Your task to perform on an android device: turn off notifications settings in the gmail app Image 0: 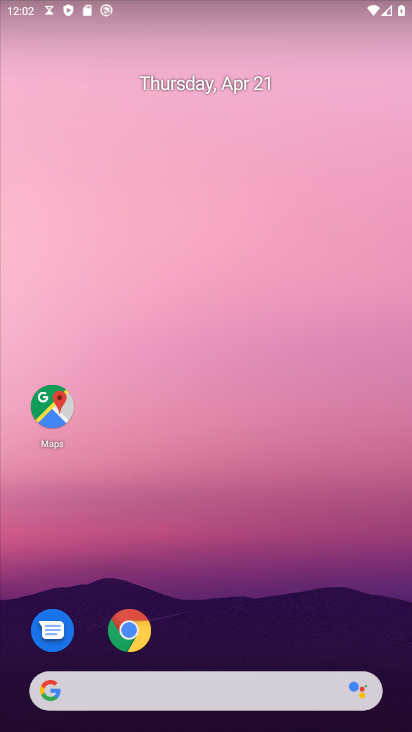
Step 0: drag from (310, 484) to (284, 84)
Your task to perform on an android device: turn off notifications settings in the gmail app Image 1: 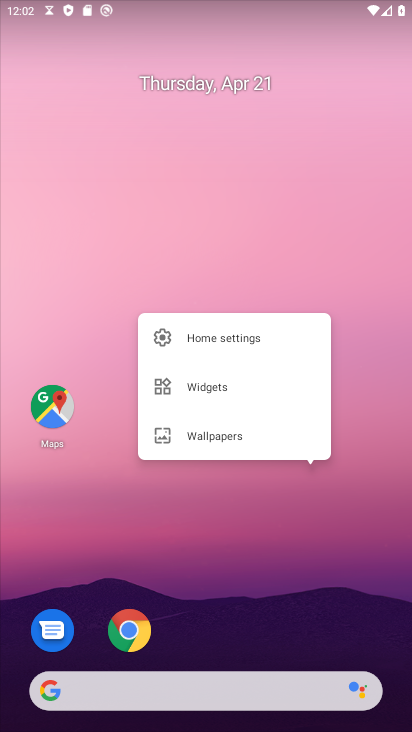
Step 1: drag from (338, 618) to (284, 190)
Your task to perform on an android device: turn off notifications settings in the gmail app Image 2: 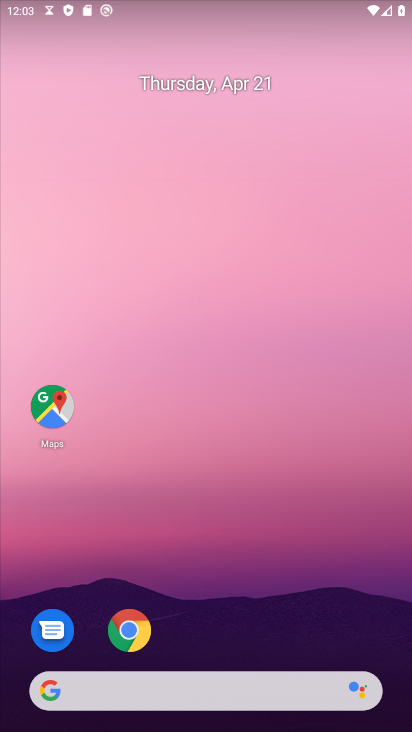
Step 2: drag from (214, 638) to (199, 277)
Your task to perform on an android device: turn off notifications settings in the gmail app Image 3: 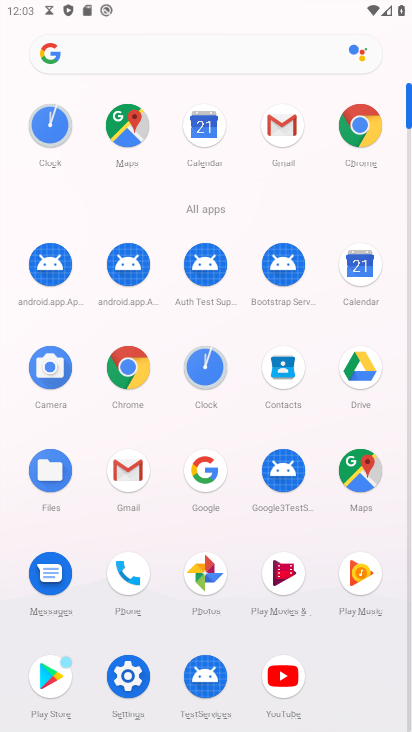
Step 3: click (134, 460)
Your task to perform on an android device: turn off notifications settings in the gmail app Image 4: 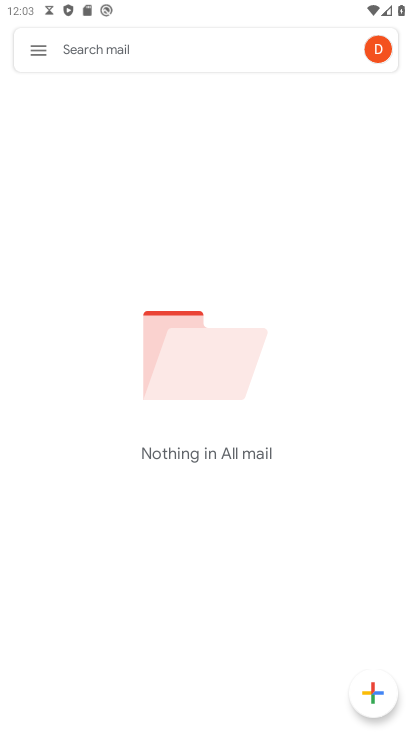
Step 4: click (22, 51)
Your task to perform on an android device: turn off notifications settings in the gmail app Image 5: 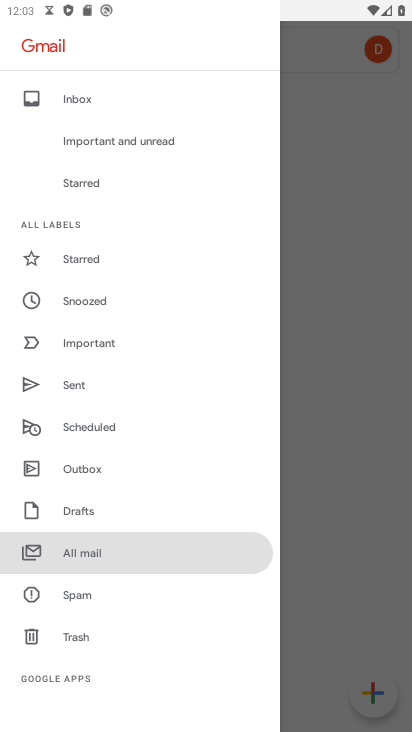
Step 5: drag from (150, 644) to (131, 268)
Your task to perform on an android device: turn off notifications settings in the gmail app Image 6: 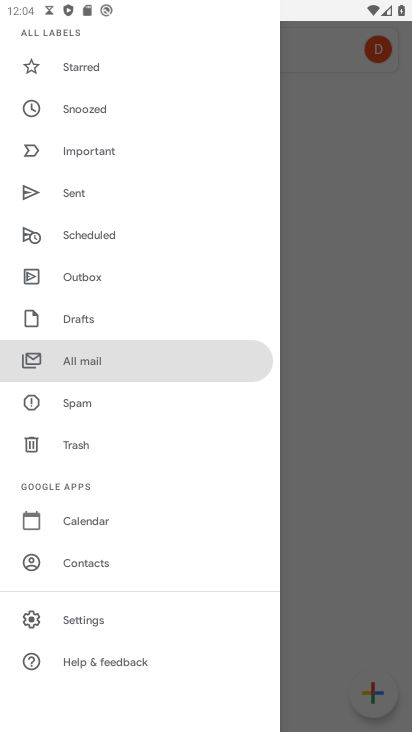
Step 6: click (142, 612)
Your task to perform on an android device: turn off notifications settings in the gmail app Image 7: 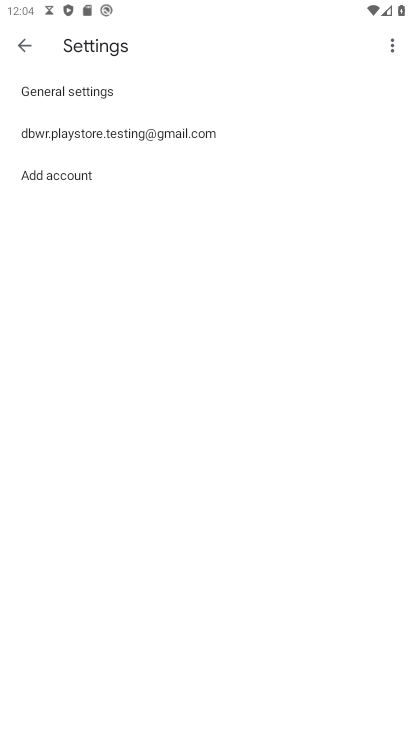
Step 7: click (251, 122)
Your task to perform on an android device: turn off notifications settings in the gmail app Image 8: 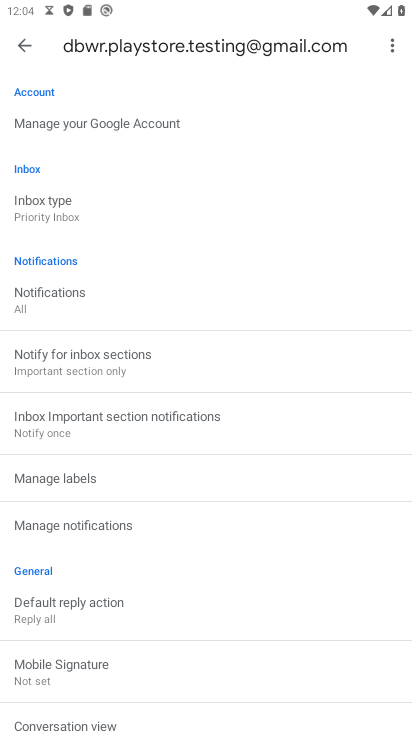
Step 8: click (197, 518)
Your task to perform on an android device: turn off notifications settings in the gmail app Image 9: 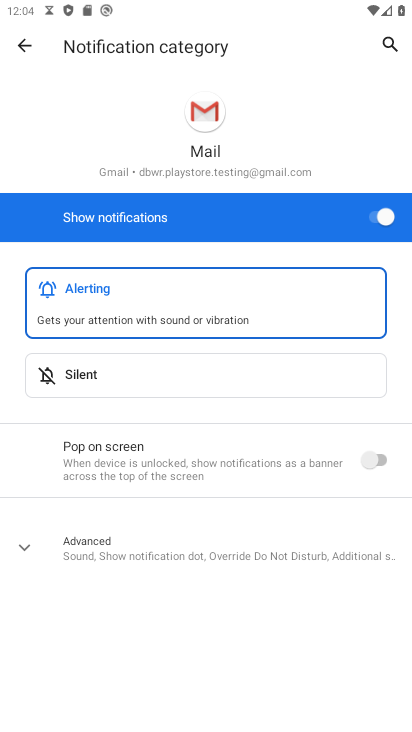
Step 9: task complete